Your task to perform on an android device: Open the phone app and click the voicemail tab. Image 0: 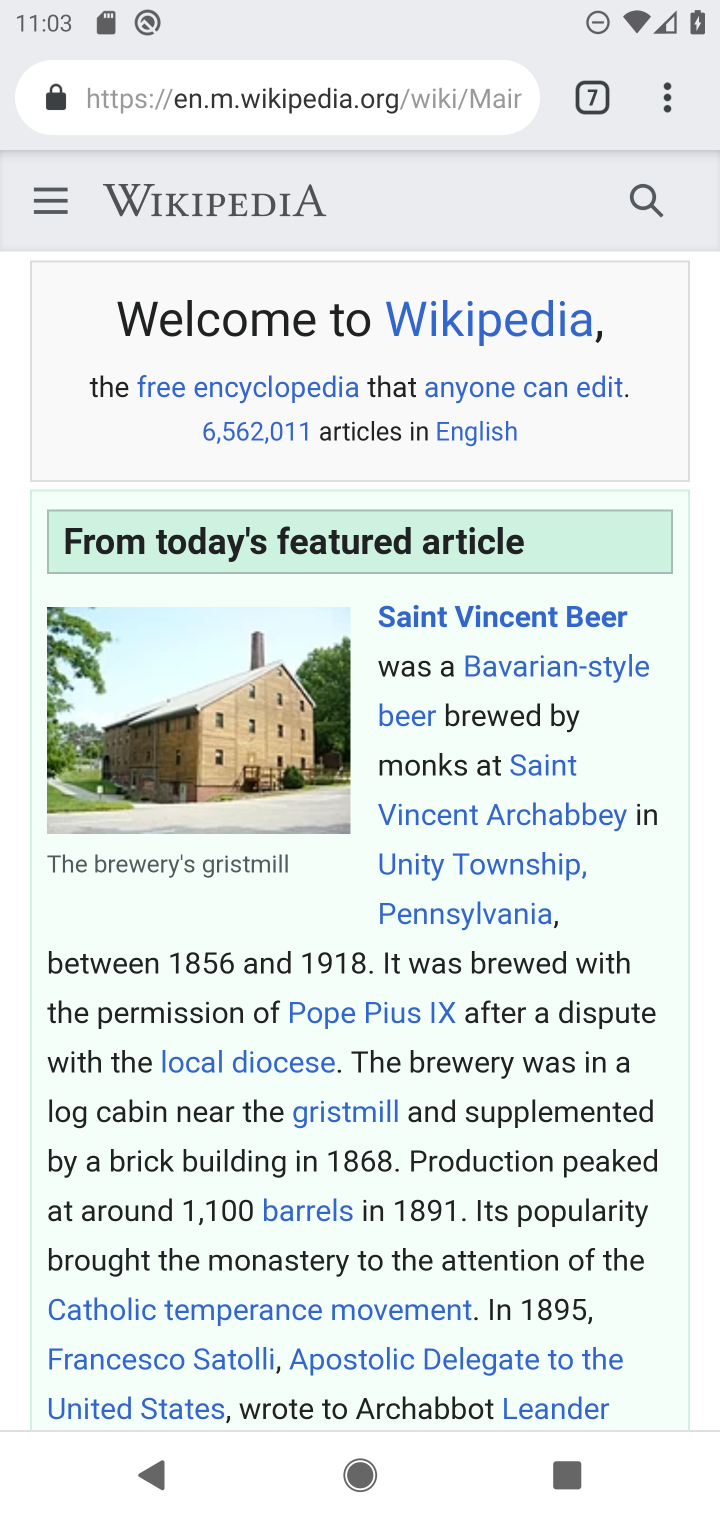
Step 0: press home button
Your task to perform on an android device: Open the phone app and click the voicemail tab. Image 1: 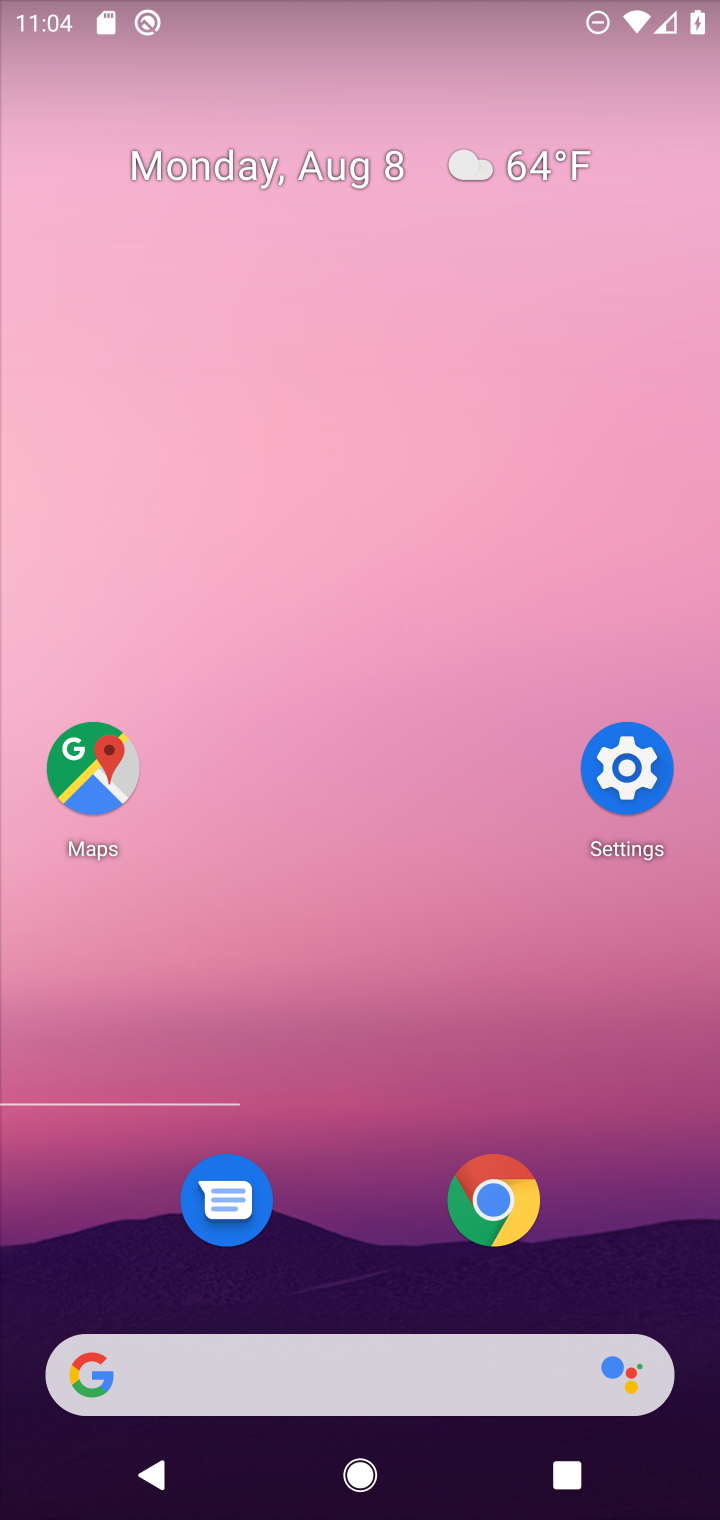
Step 1: drag from (419, 1312) to (581, 426)
Your task to perform on an android device: Open the phone app and click the voicemail tab. Image 2: 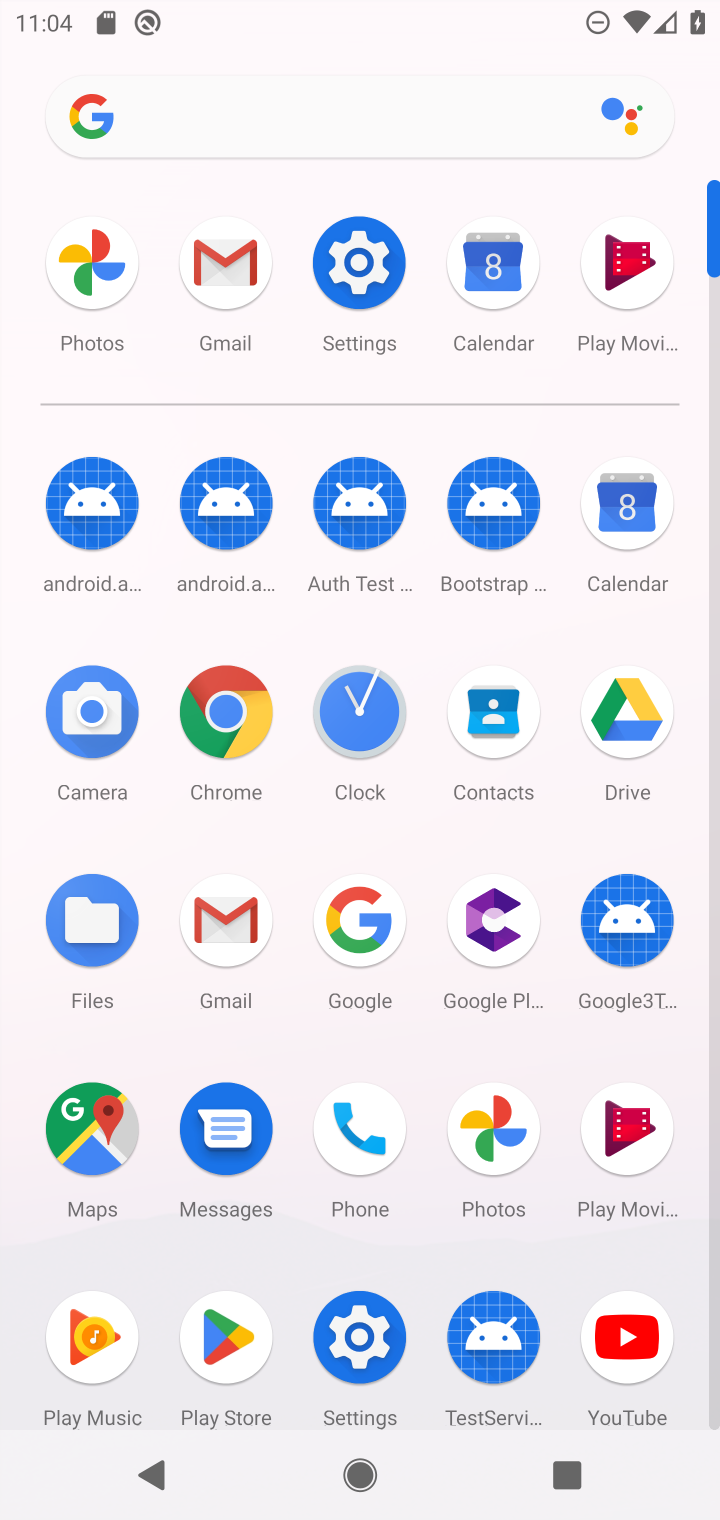
Step 2: click (363, 1120)
Your task to perform on an android device: Open the phone app and click the voicemail tab. Image 3: 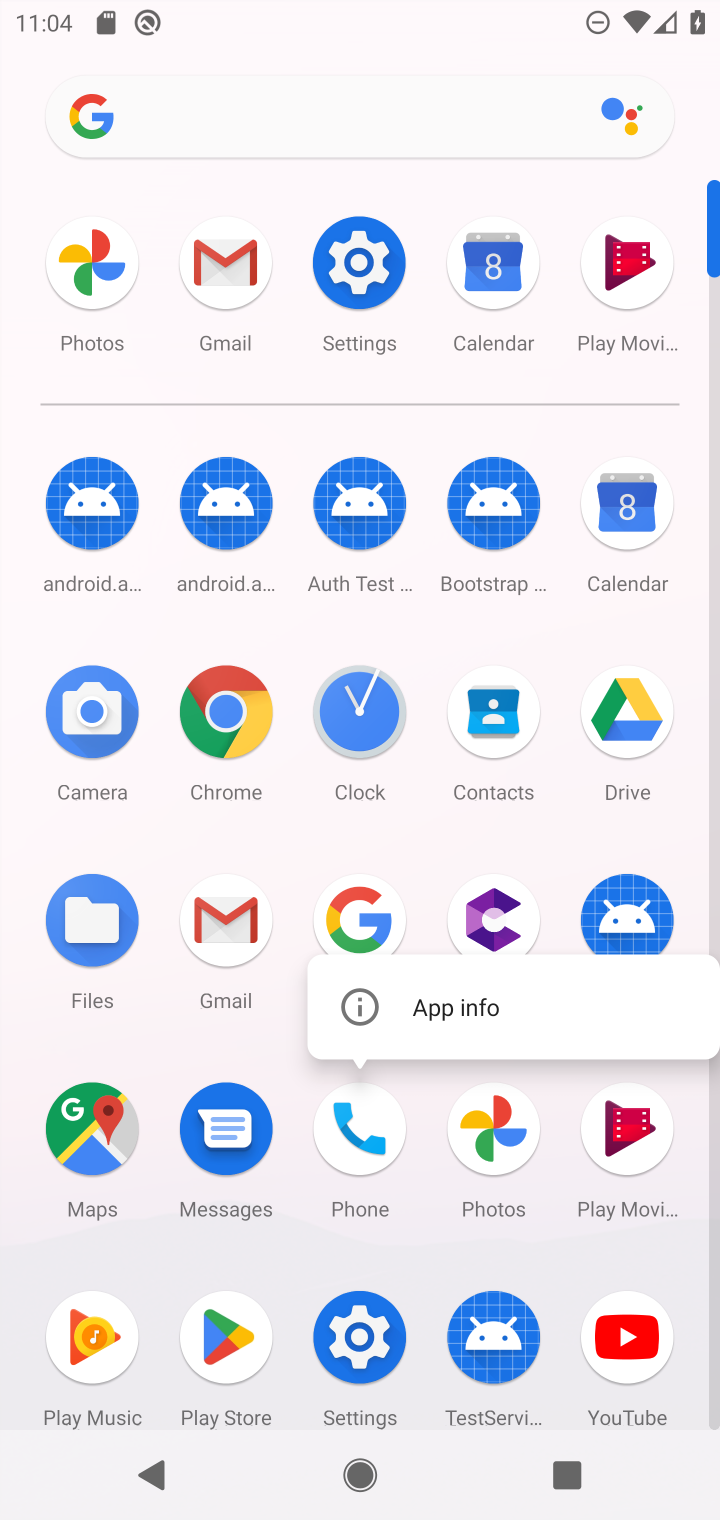
Step 3: click (357, 1144)
Your task to perform on an android device: Open the phone app and click the voicemail tab. Image 4: 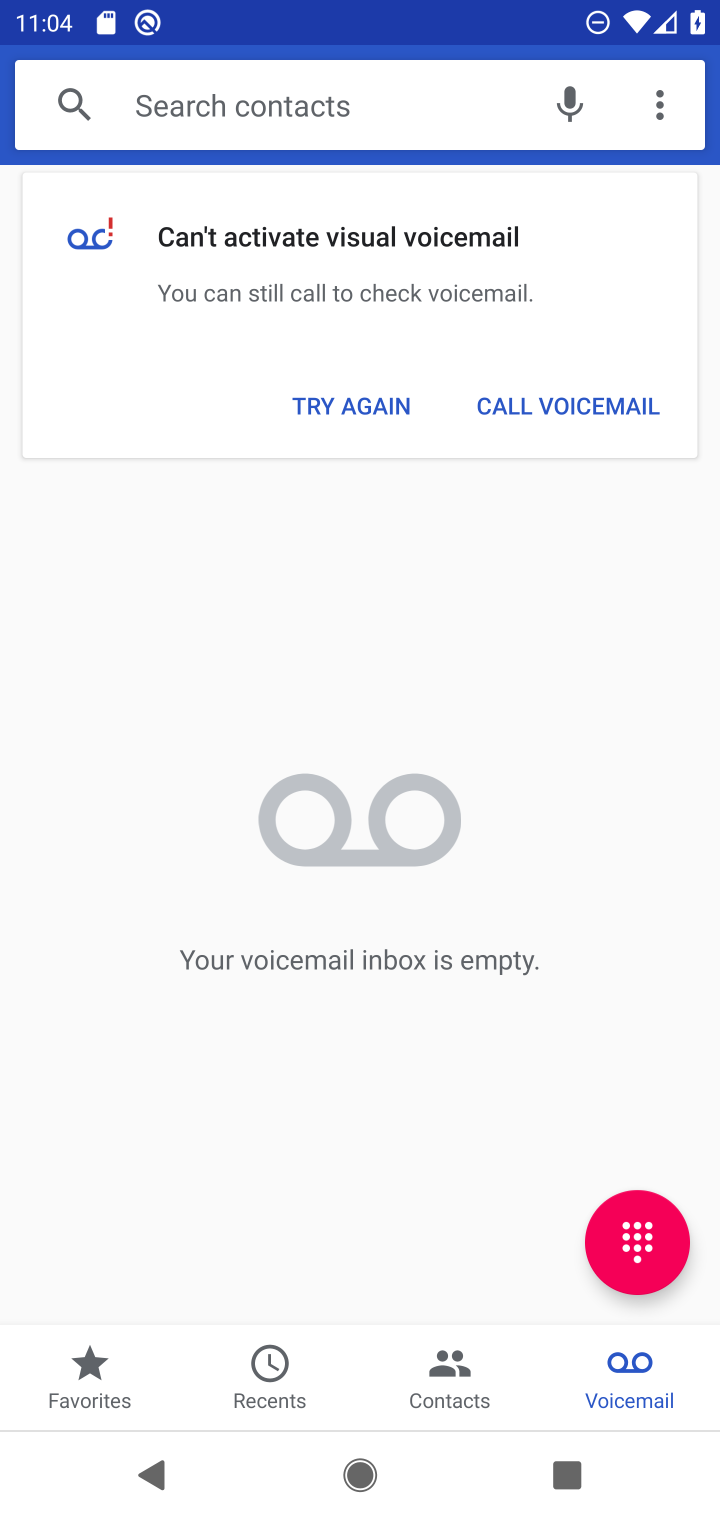
Step 4: click (629, 1363)
Your task to perform on an android device: Open the phone app and click the voicemail tab. Image 5: 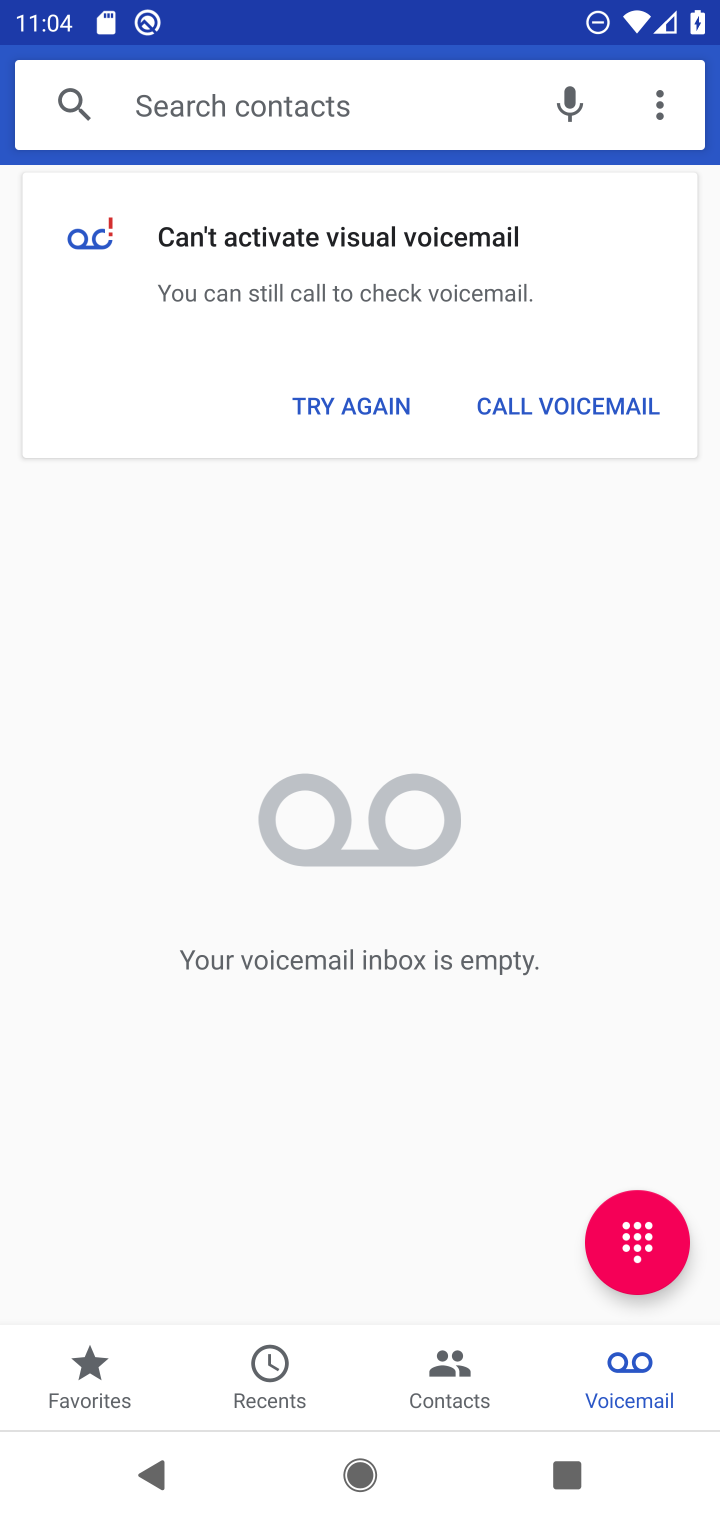
Step 5: task complete